Your task to perform on an android device: set the stopwatch Image 0: 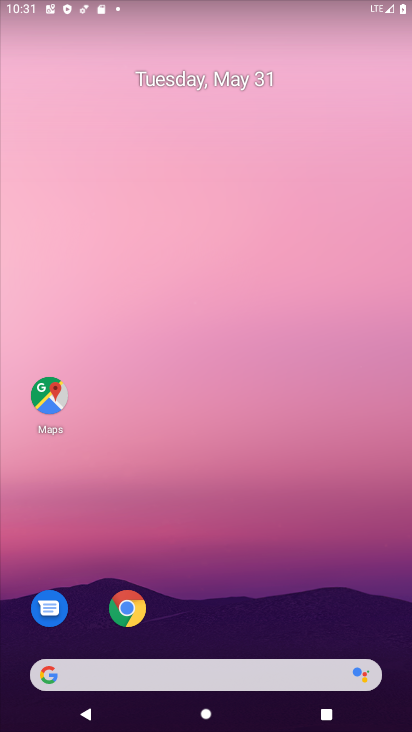
Step 0: drag from (197, 643) to (249, 532)
Your task to perform on an android device: set the stopwatch Image 1: 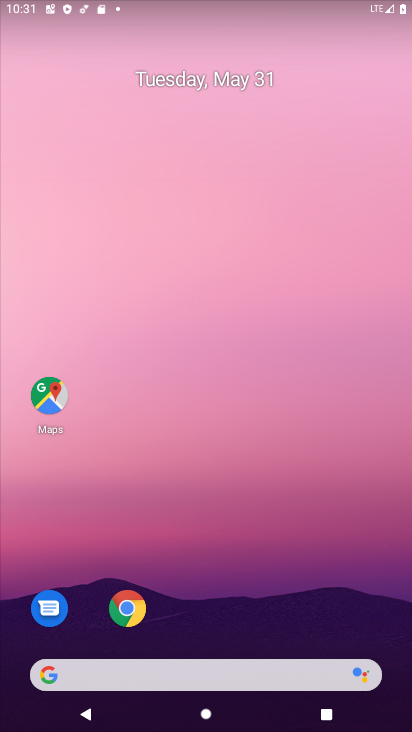
Step 1: drag from (234, 641) to (293, 16)
Your task to perform on an android device: set the stopwatch Image 2: 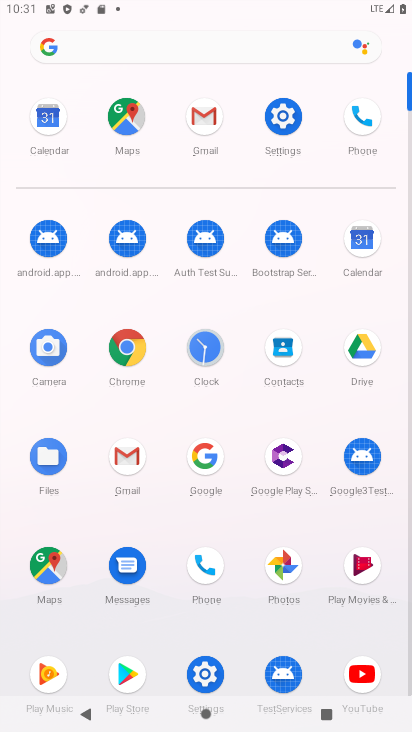
Step 2: click (207, 364)
Your task to perform on an android device: set the stopwatch Image 3: 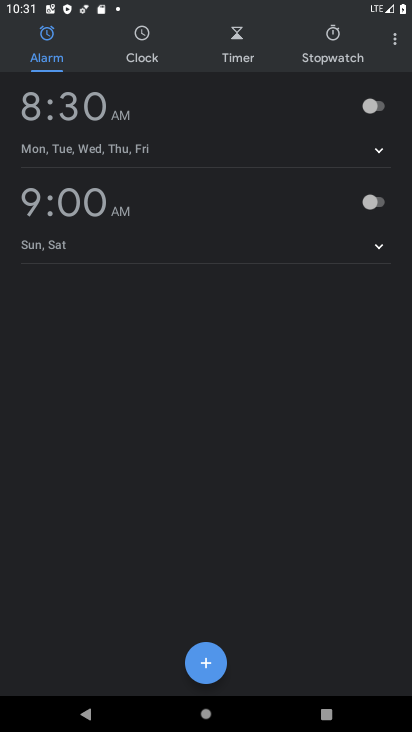
Step 3: click (331, 42)
Your task to perform on an android device: set the stopwatch Image 4: 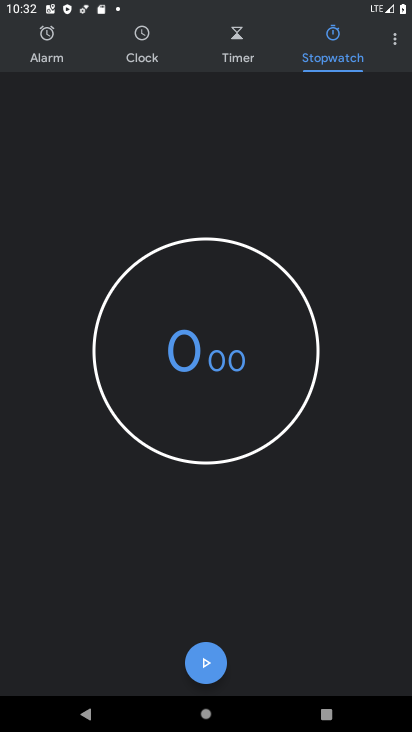
Step 4: task complete